Your task to perform on an android device: Open internet settings Image 0: 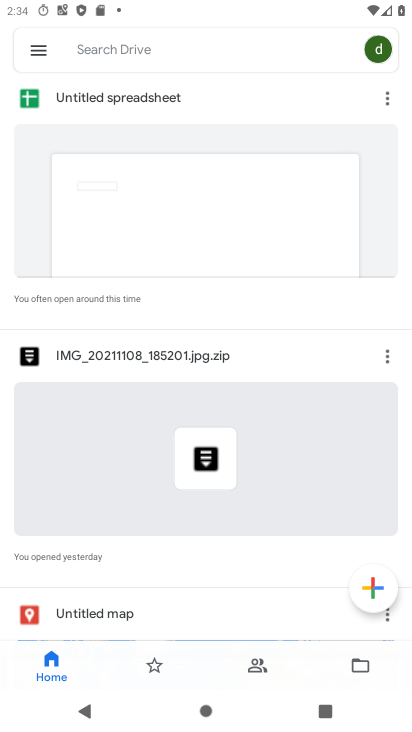
Step 0: press home button
Your task to perform on an android device: Open internet settings Image 1: 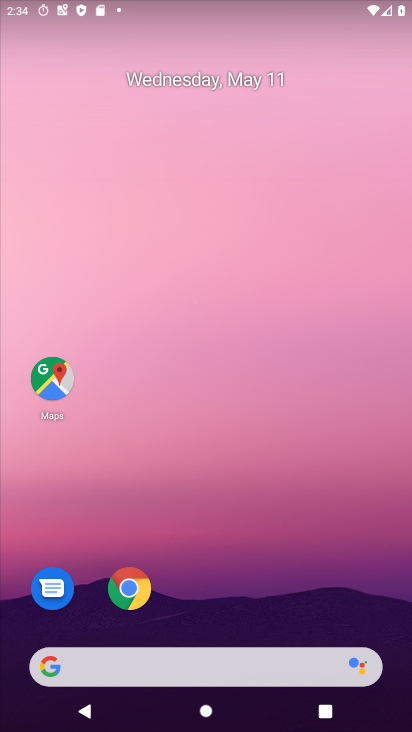
Step 1: drag from (262, 611) to (278, 90)
Your task to perform on an android device: Open internet settings Image 2: 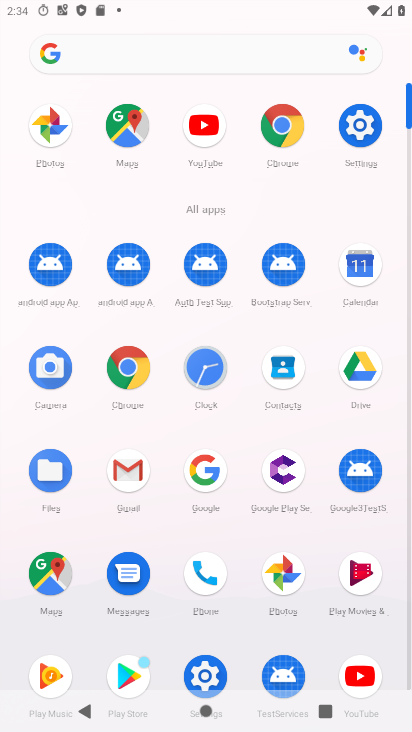
Step 2: click (207, 672)
Your task to perform on an android device: Open internet settings Image 3: 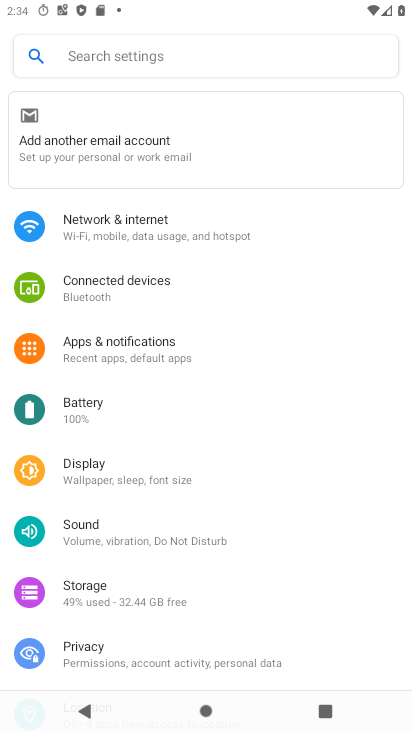
Step 3: click (134, 226)
Your task to perform on an android device: Open internet settings Image 4: 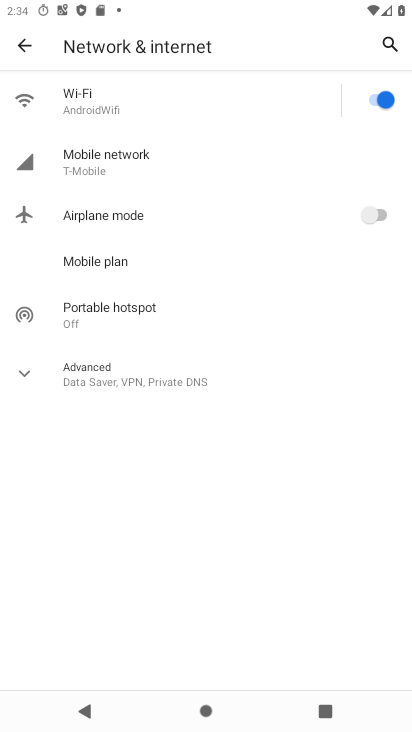
Step 4: task complete